Your task to perform on an android device: open device folders in google photos Image 0: 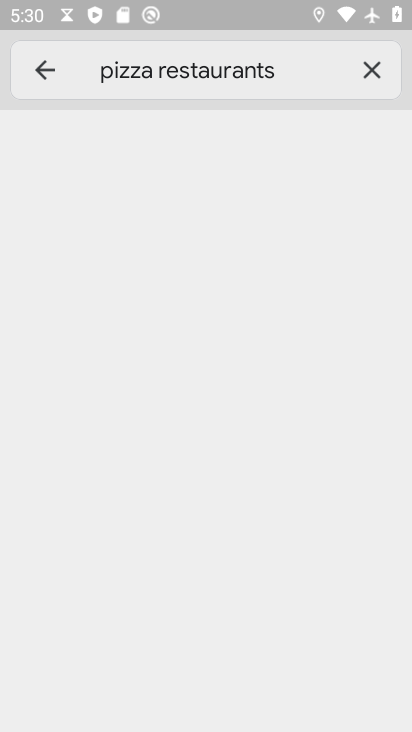
Step 0: press home button
Your task to perform on an android device: open device folders in google photos Image 1: 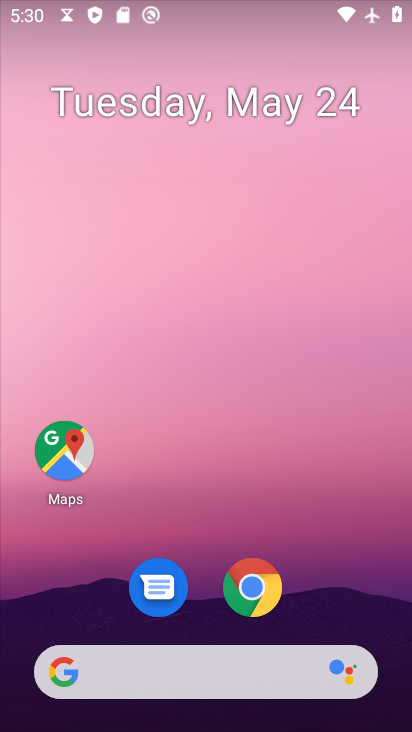
Step 1: drag from (327, 511) to (194, 2)
Your task to perform on an android device: open device folders in google photos Image 2: 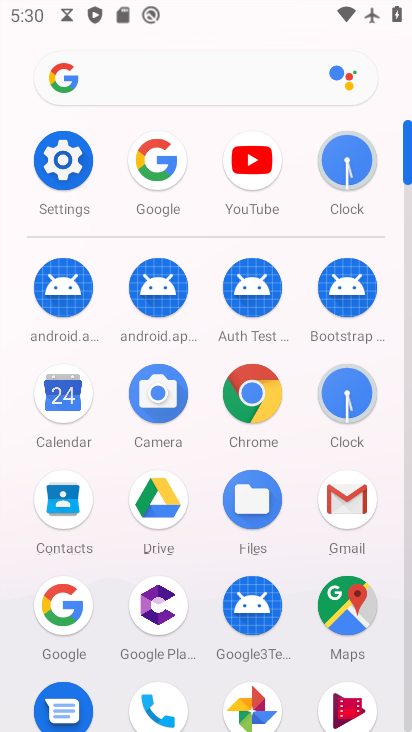
Step 2: click (258, 707)
Your task to perform on an android device: open device folders in google photos Image 3: 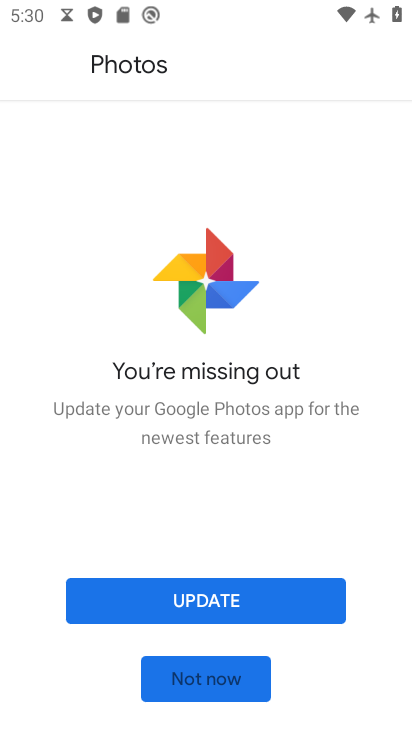
Step 3: click (218, 678)
Your task to perform on an android device: open device folders in google photos Image 4: 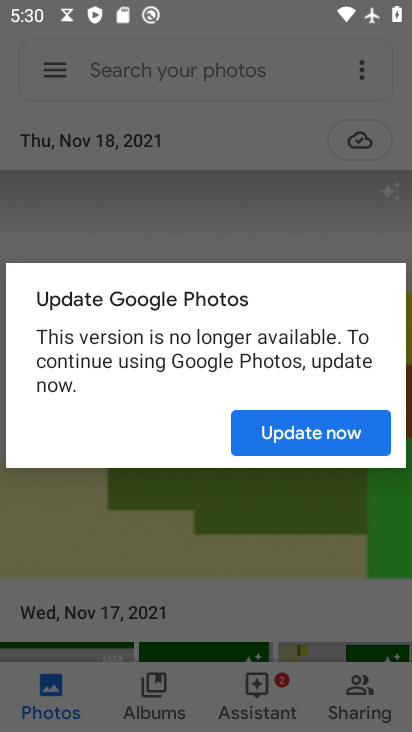
Step 4: click (306, 437)
Your task to perform on an android device: open device folders in google photos Image 5: 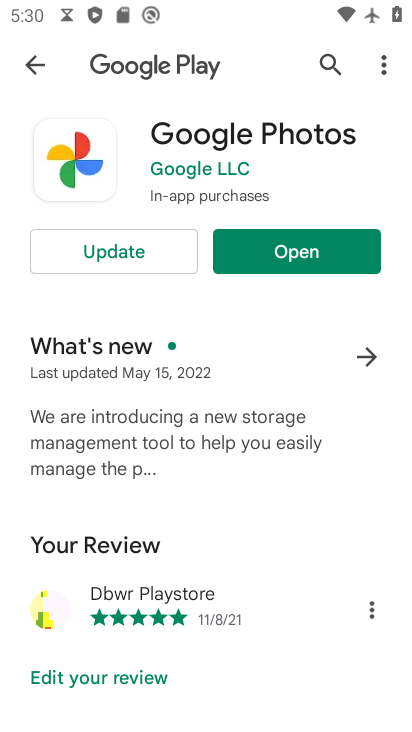
Step 5: click (144, 261)
Your task to perform on an android device: open device folders in google photos Image 6: 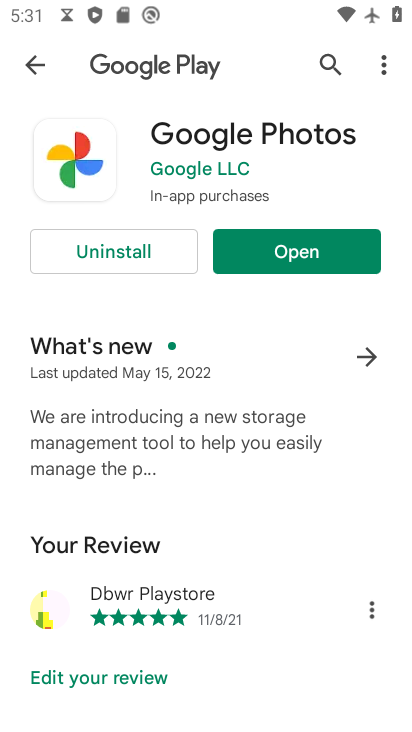
Step 6: click (348, 256)
Your task to perform on an android device: open device folders in google photos Image 7: 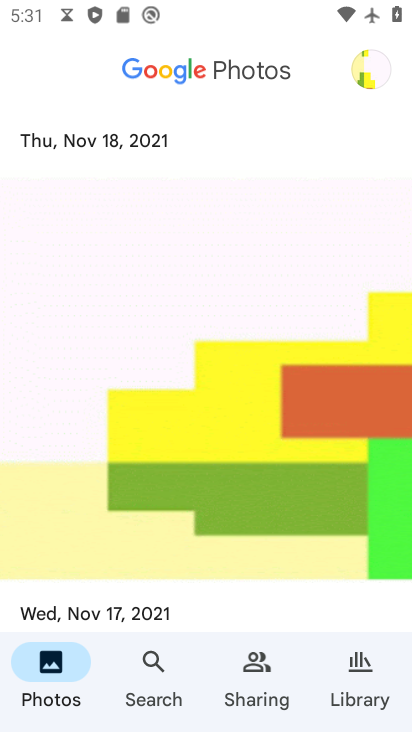
Step 7: click (152, 659)
Your task to perform on an android device: open device folders in google photos Image 8: 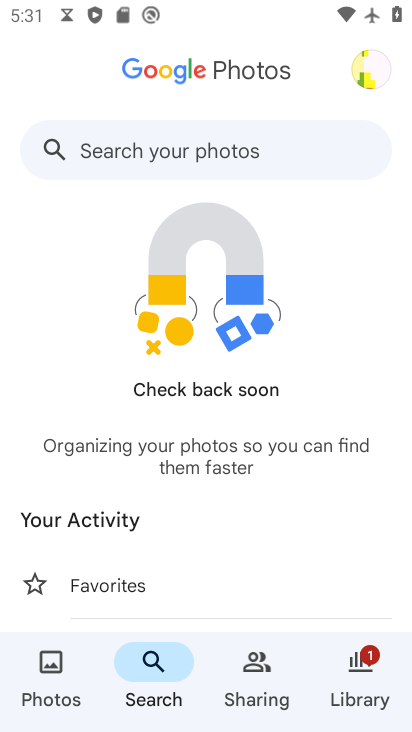
Step 8: click (178, 148)
Your task to perform on an android device: open device folders in google photos Image 9: 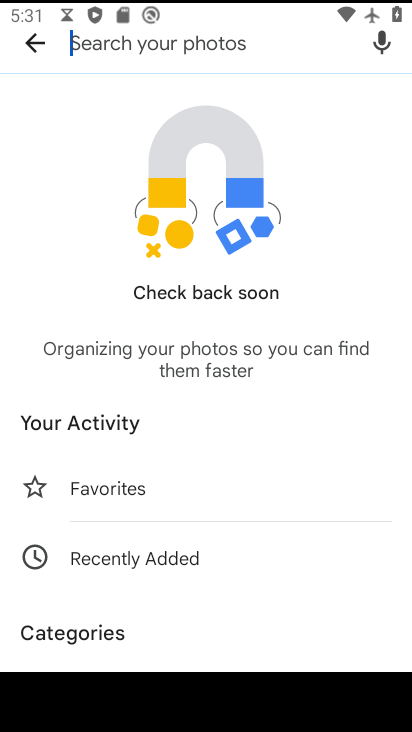
Step 9: type "device folders"
Your task to perform on an android device: open device folders in google photos Image 10: 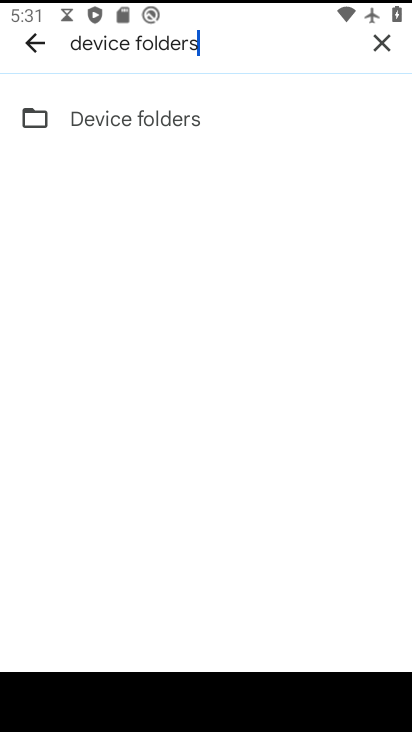
Step 10: click (153, 116)
Your task to perform on an android device: open device folders in google photos Image 11: 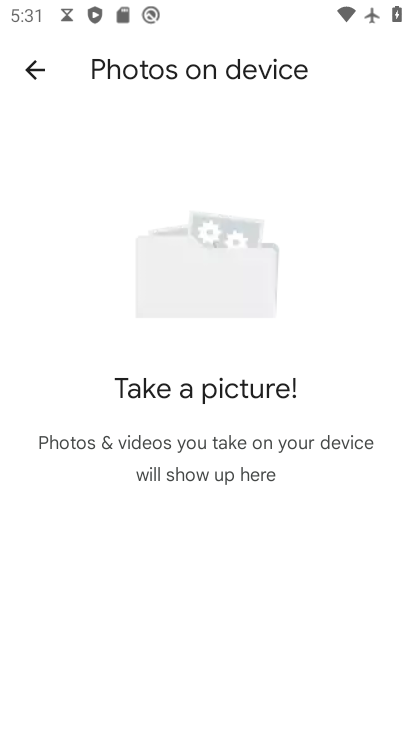
Step 11: task complete